Your task to perform on an android device: install app "Firefox Browser" Image 0: 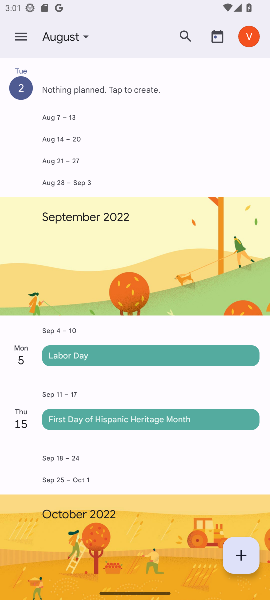
Step 0: press home button
Your task to perform on an android device: install app "Firefox Browser" Image 1: 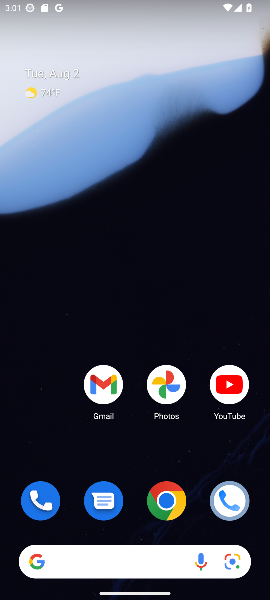
Step 1: drag from (141, 458) to (119, 4)
Your task to perform on an android device: install app "Firefox Browser" Image 2: 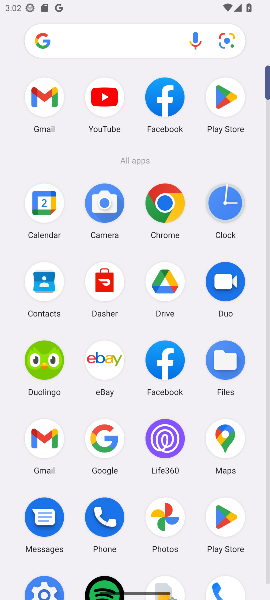
Step 2: click (224, 97)
Your task to perform on an android device: install app "Firefox Browser" Image 3: 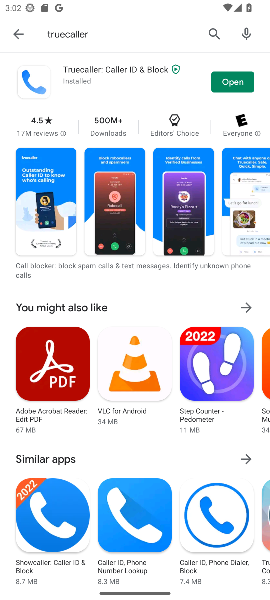
Step 3: click (208, 32)
Your task to perform on an android device: install app "Firefox Browser" Image 4: 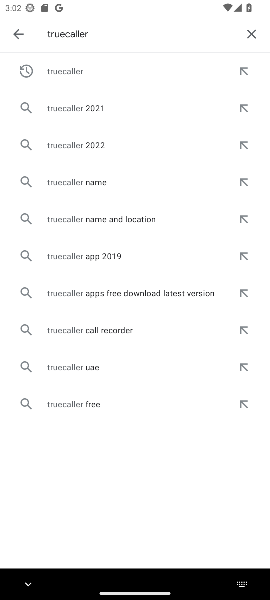
Step 4: click (245, 37)
Your task to perform on an android device: install app "Firefox Browser" Image 5: 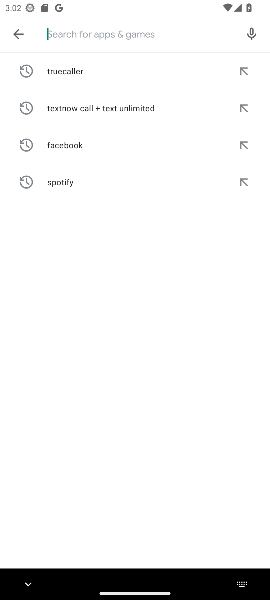
Step 5: type "Firefox Browser"
Your task to perform on an android device: install app "Firefox Browser" Image 6: 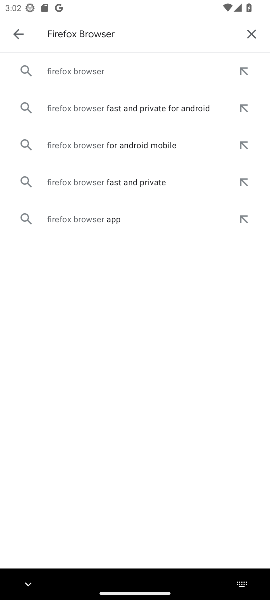
Step 6: click (86, 77)
Your task to perform on an android device: install app "Firefox Browser" Image 7: 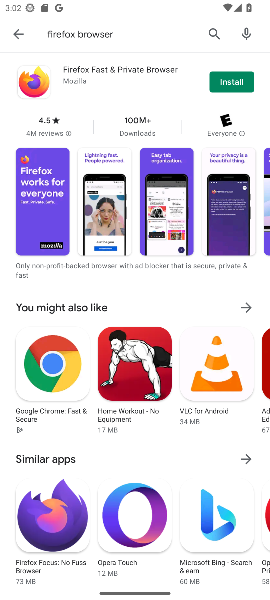
Step 7: click (233, 86)
Your task to perform on an android device: install app "Firefox Browser" Image 8: 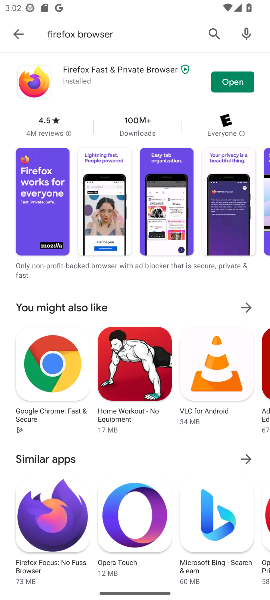
Step 8: task complete